Your task to perform on an android device: clear all cookies in the chrome app Image 0: 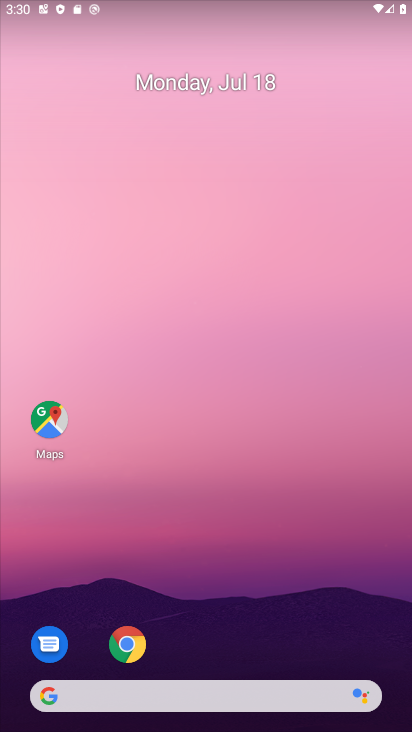
Step 0: click (127, 651)
Your task to perform on an android device: clear all cookies in the chrome app Image 1: 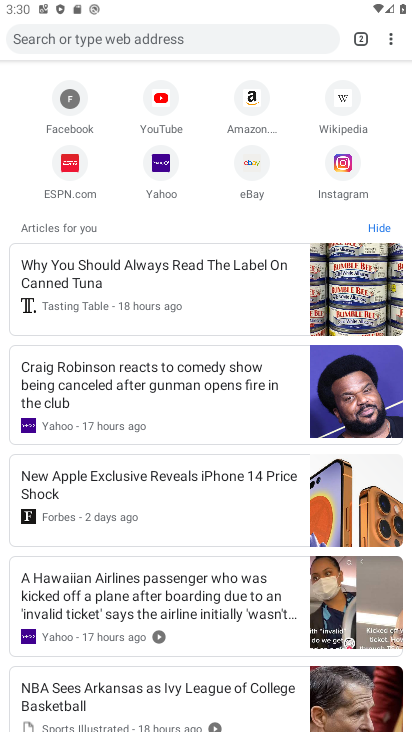
Step 1: click (388, 46)
Your task to perform on an android device: clear all cookies in the chrome app Image 2: 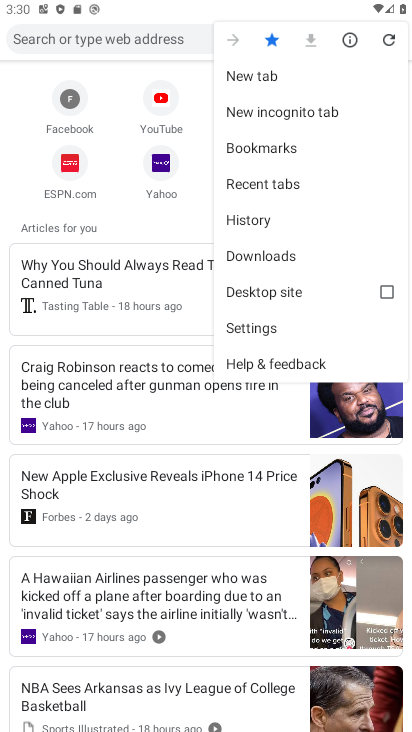
Step 2: click (249, 226)
Your task to perform on an android device: clear all cookies in the chrome app Image 3: 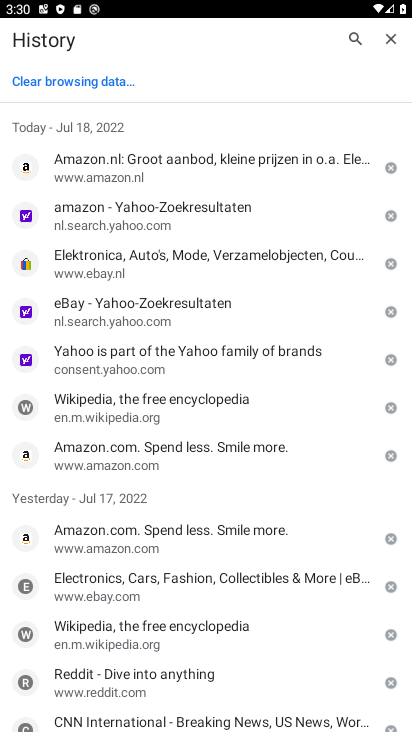
Step 3: click (74, 86)
Your task to perform on an android device: clear all cookies in the chrome app Image 4: 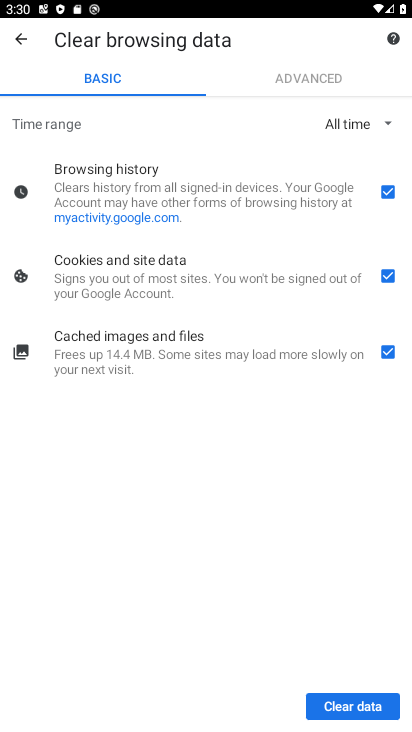
Step 4: click (385, 188)
Your task to perform on an android device: clear all cookies in the chrome app Image 5: 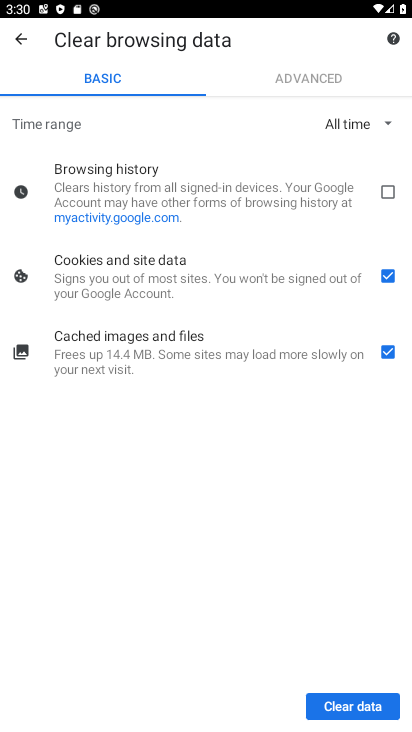
Step 5: click (390, 357)
Your task to perform on an android device: clear all cookies in the chrome app Image 6: 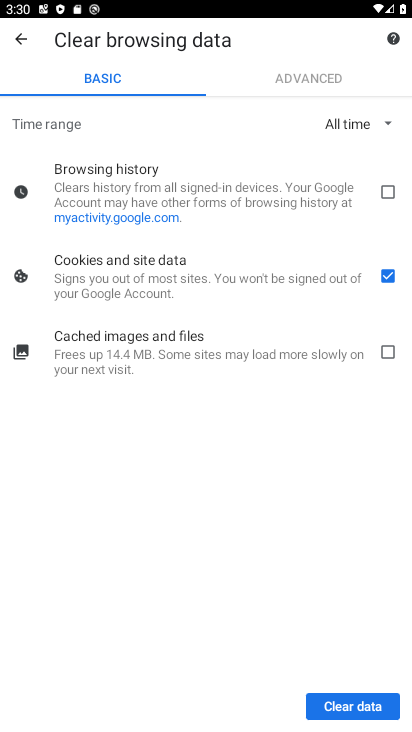
Step 6: click (353, 712)
Your task to perform on an android device: clear all cookies in the chrome app Image 7: 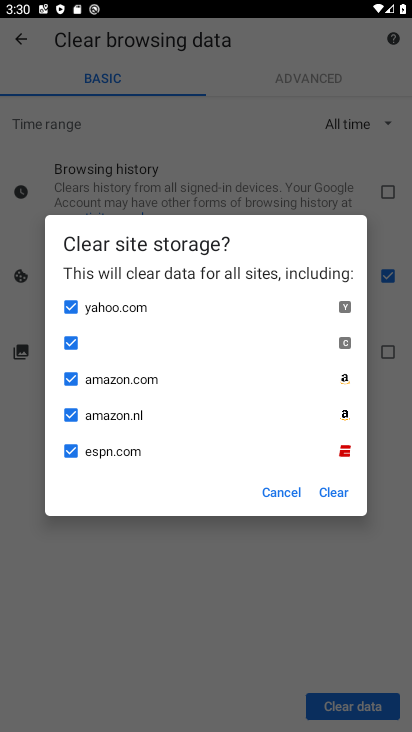
Step 7: click (338, 494)
Your task to perform on an android device: clear all cookies in the chrome app Image 8: 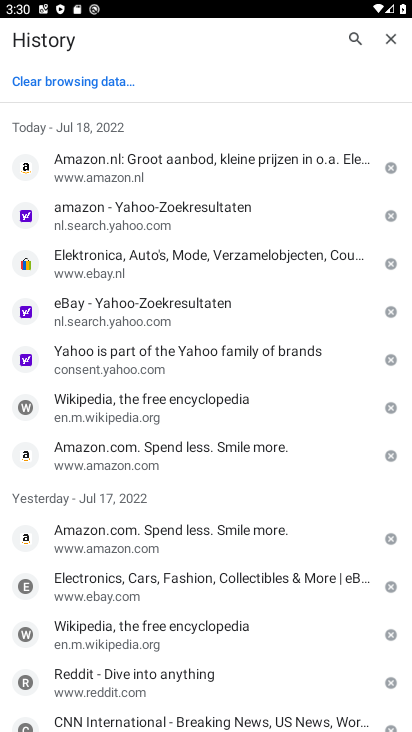
Step 8: task complete